Your task to perform on an android device: turn on airplane mode Image 0: 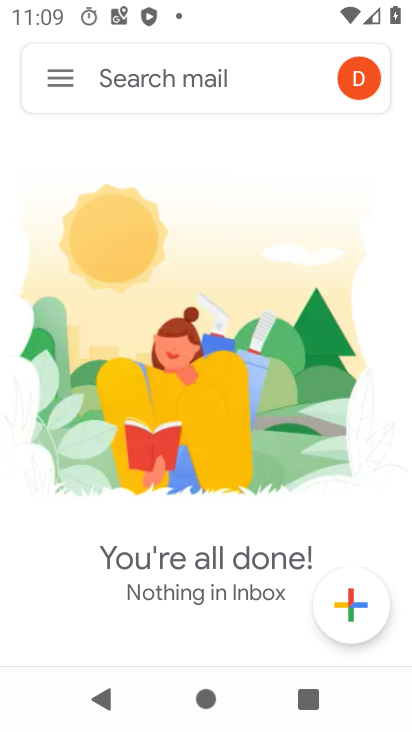
Step 0: press home button
Your task to perform on an android device: turn on airplane mode Image 1: 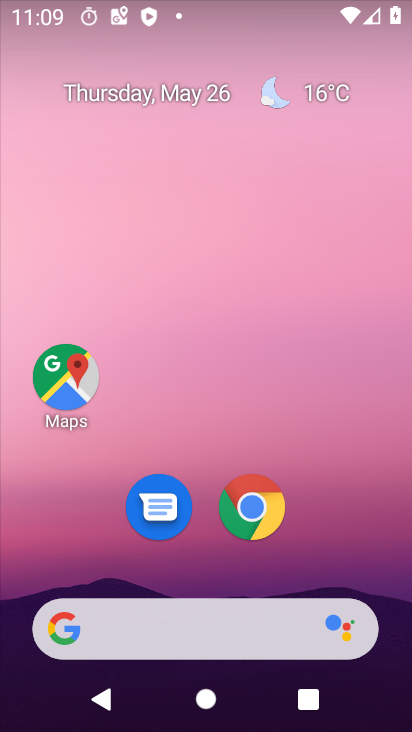
Step 1: drag from (213, 599) to (257, 327)
Your task to perform on an android device: turn on airplane mode Image 2: 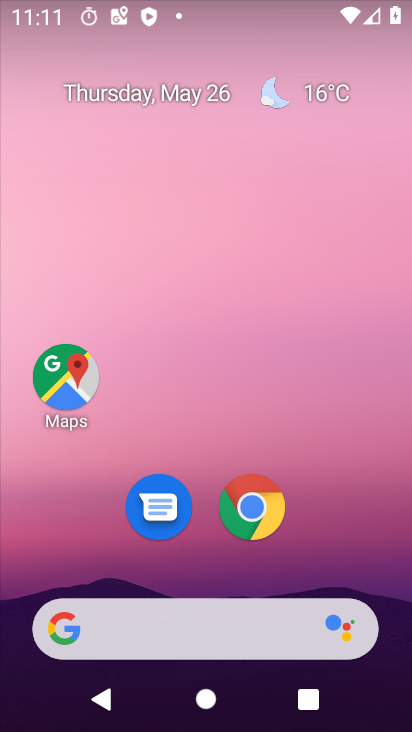
Step 2: drag from (225, 599) to (249, 4)
Your task to perform on an android device: turn on airplane mode Image 3: 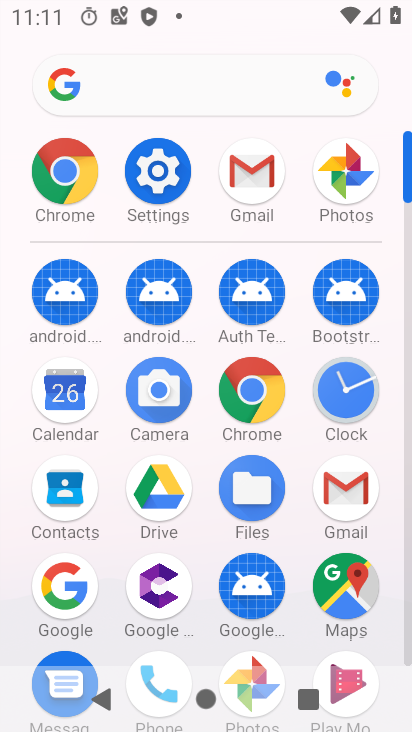
Step 3: click (151, 179)
Your task to perform on an android device: turn on airplane mode Image 4: 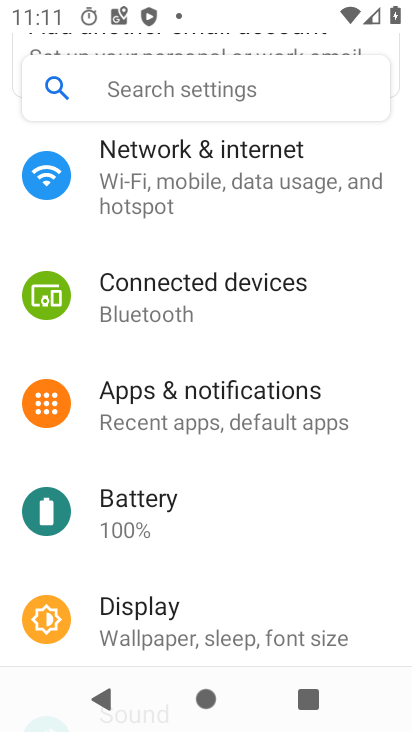
Step 4: click (186, 178)
Your task to perform on an android device: turn on airplane mode Image 5: 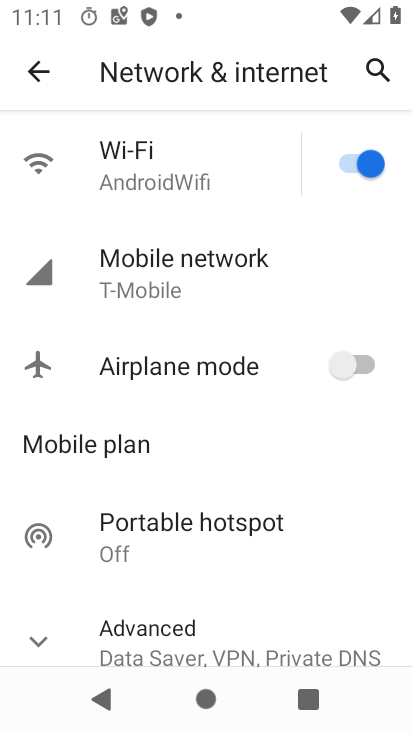
Step 5: click (357, 361)
Your task to perform on an android device: turn on airplane mode Image 6: 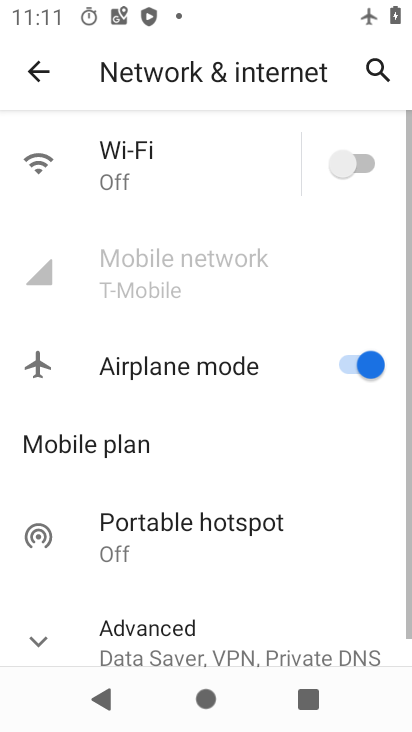
Step 6: task complete